Your task to perform on an android device: install app "Truecaller" Image 0: 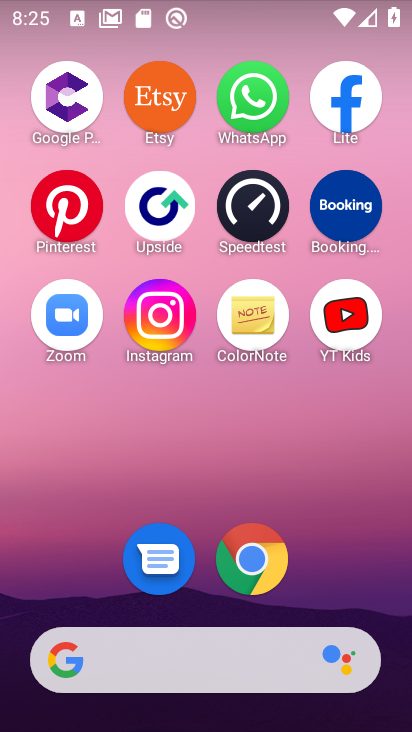
Step 0: drag from (206, 481) to (243, 164)
Your task to perform on an android device: install app "Truecaller" Image 1: 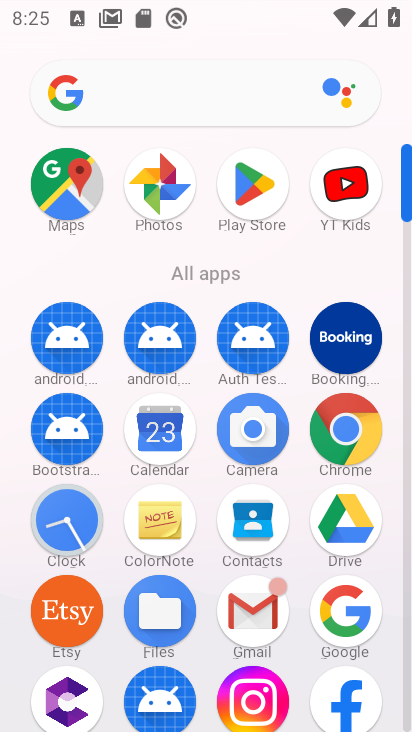
Step 1: click (244, 204)
Your task to perform on an android device: install app "Truecaller" Image 2: 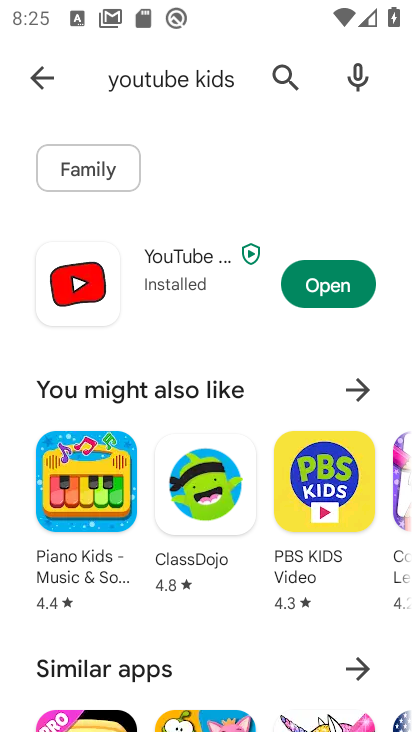
Step 2: drag from (285, 82) to (331, 82)
Your task to perform on an android device: install app "Truecaller" Image 3: 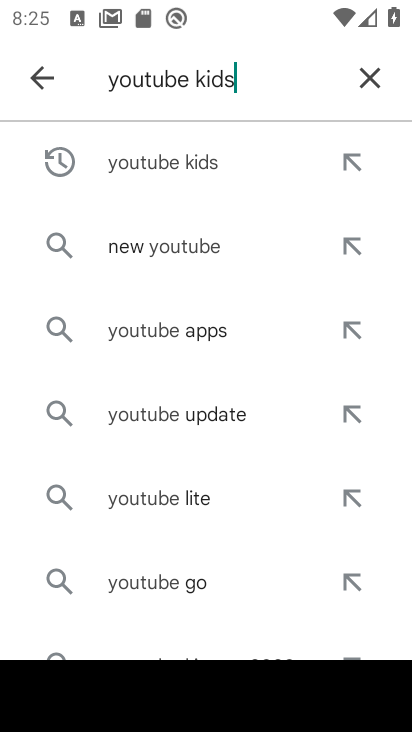
Step 3: click (364, 73)
Your task to perform on an android device: install app "Truecaller" Image 4: 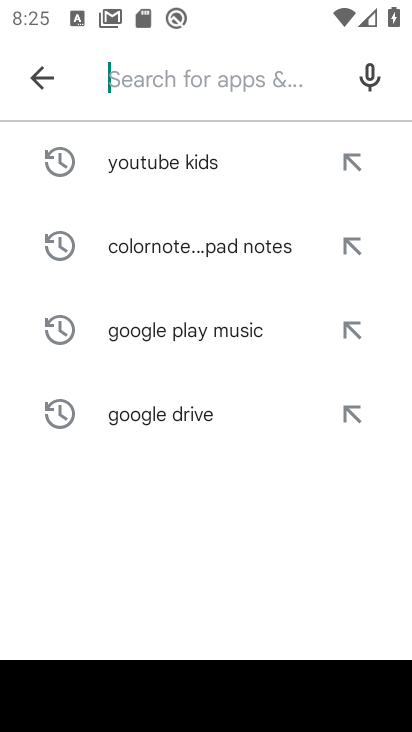
Step 4: type "Truecalle"
Your task to perform on an android device: install app "Truecaller" Image 5: 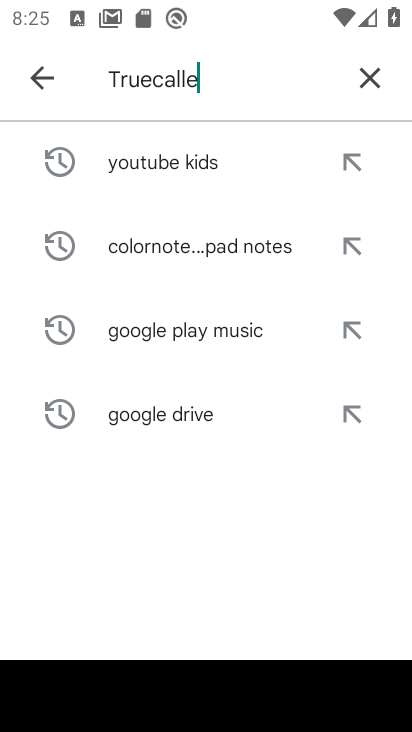
Step 5: type ""
Your task to perform on an android device: install app "Truecaller" Image 6: 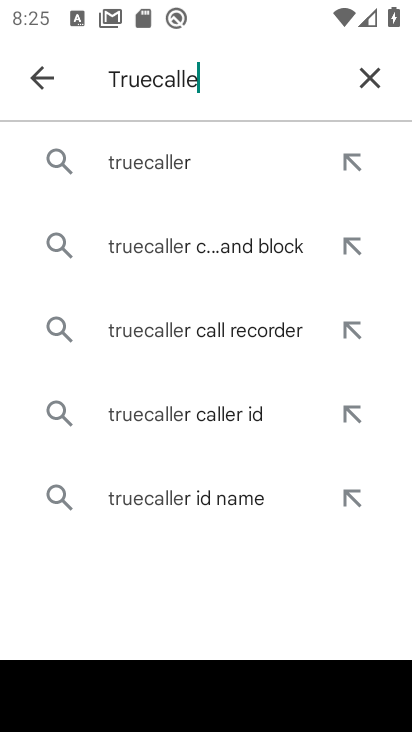
Step 6: click (165, 166)
Your task to perform on an android device: install app "Truecaller" Image 7: 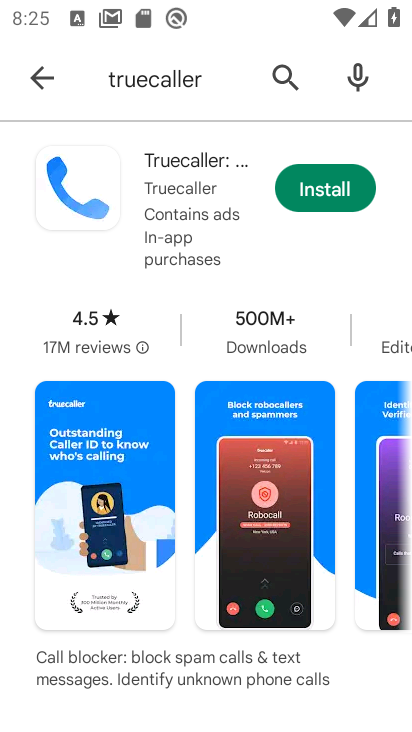
Step 7: click (306, 185)
Your task to perform on an android device: install app "Truecaller" Image 8: 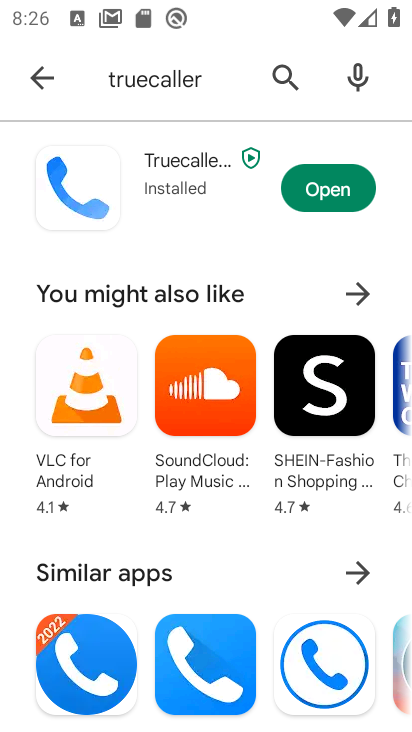
Step 8: task complete